Your task to perform on an android device: Show me the alarms in the clock app Image 0: 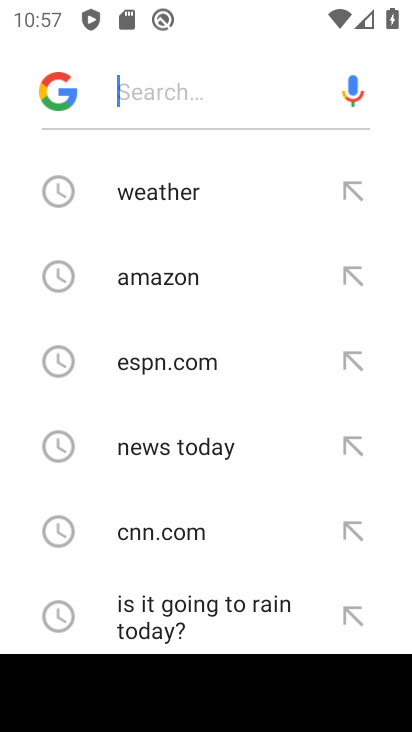
Step 0: press home button
Your task to perform on an android device: Show me the alarms in the clock app Image 1: 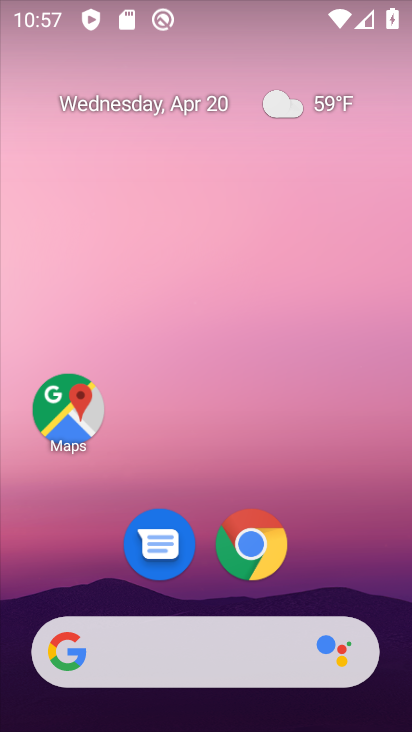
Step 1: drag from (303, 584) to (294, 148)
Your task to perform on an android device: Show me the alarms in the clock app Image 2: 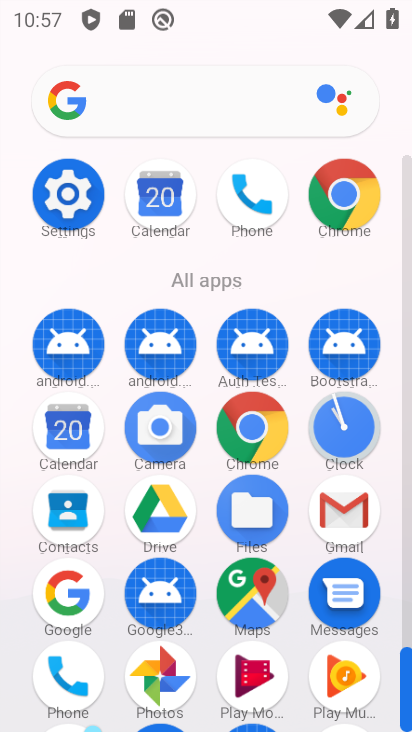
Step 2: click (350, 411)
Your task to perform on an android device: Show me the alarms in the clock app Image 3: 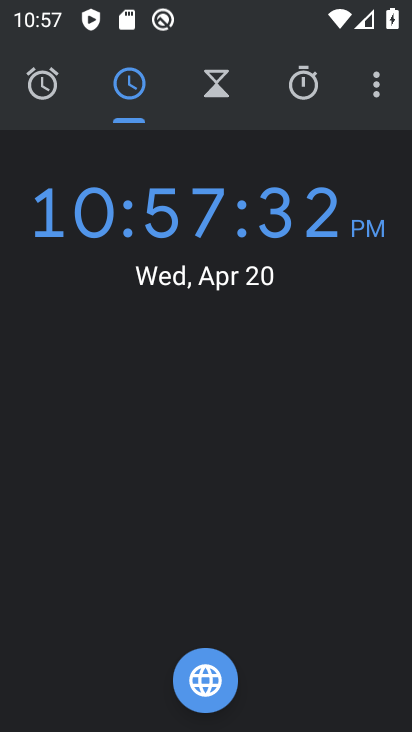
Step 3: click (34, 67)
Your task to perform on an android device: Show me the alarms in the clock app Image 4: 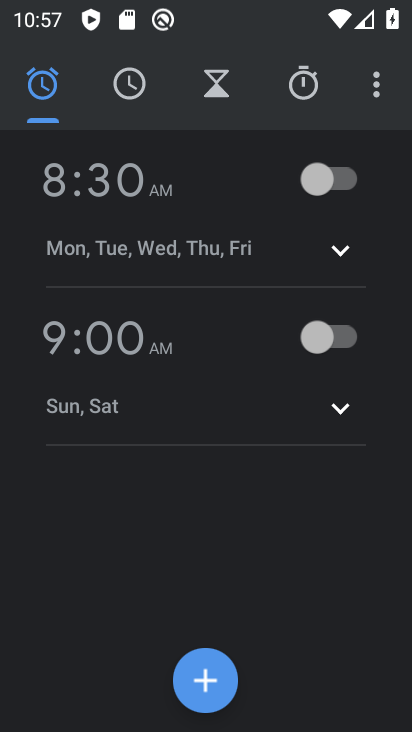
Step 4: task complete